Your task to perform on an android device: turn off notifications in google photos Image 0: 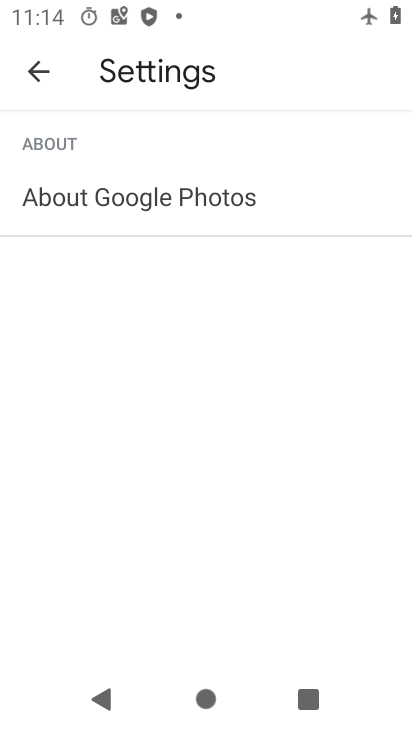
Step 0: press home button
Your task to perform on an android device: turn off notifications in google photos Image 1: 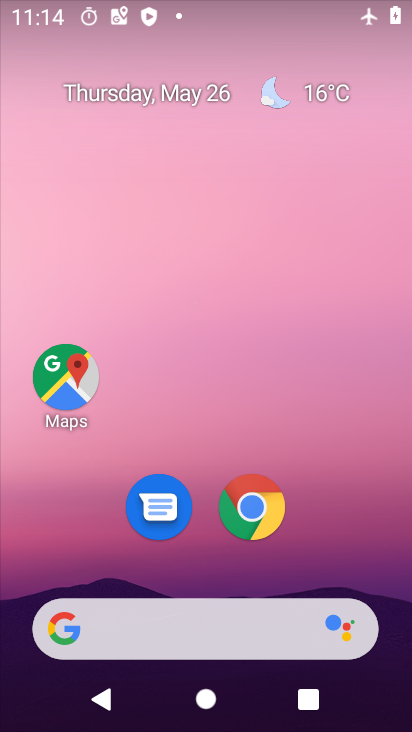
Step 1: drag from (156, 531) to (196, 190)
Your task to perform on an android device: turn off notifications in google photos Image 2: 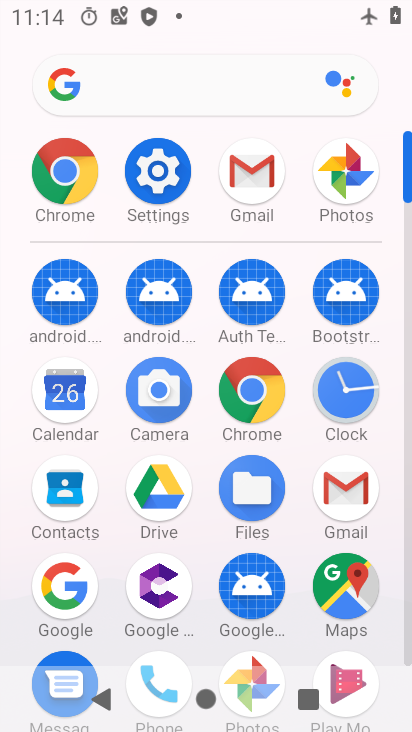
Step 2: click (343, 180)
Your task to perform on an android device: turn off notifications in google photos Image 3: 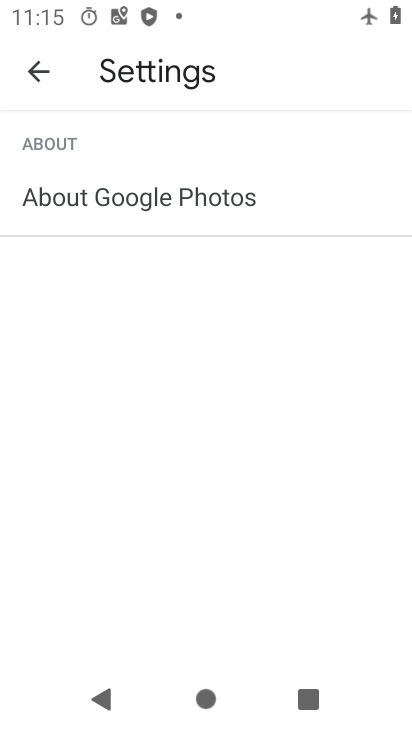
Step 3: press home button
Your task to perform on an android device: turn off notifications in google photos Image 4: 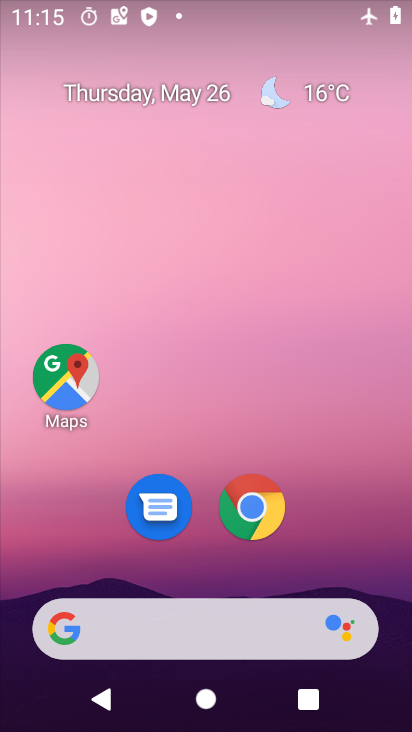
Step 4: drag from (178, 604) to (207, 235)
Your task to perform on an android device: turn off notifications in google photos Image 5: 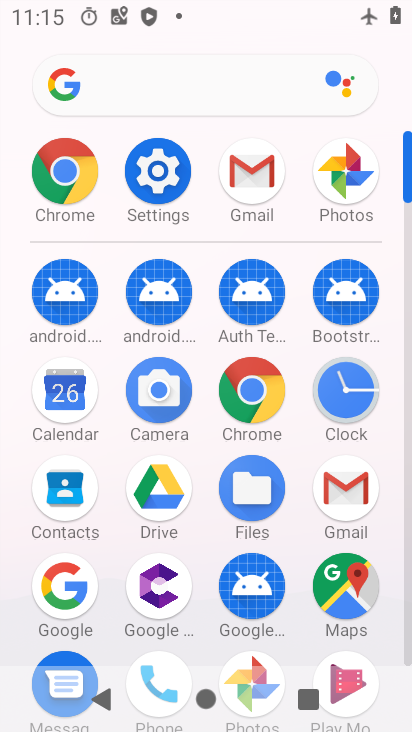
Step 5: click (351, 174)
Your task to perform on an android device: turn off notifications in google photos Image 6: 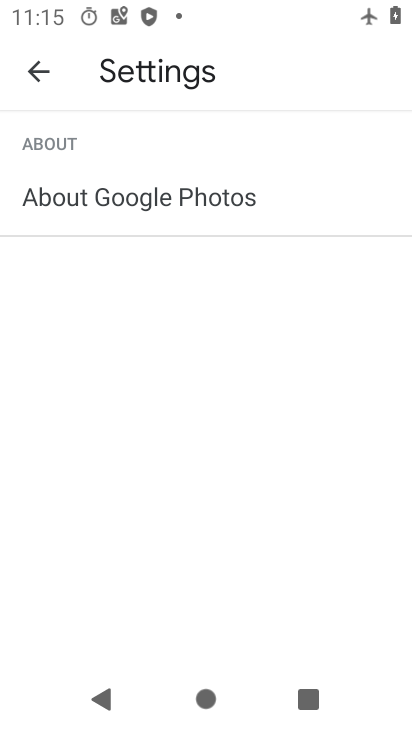
Step 6: click (35, 87)
Your task to perform on an android device: turn off notifications in google photos Image 7: 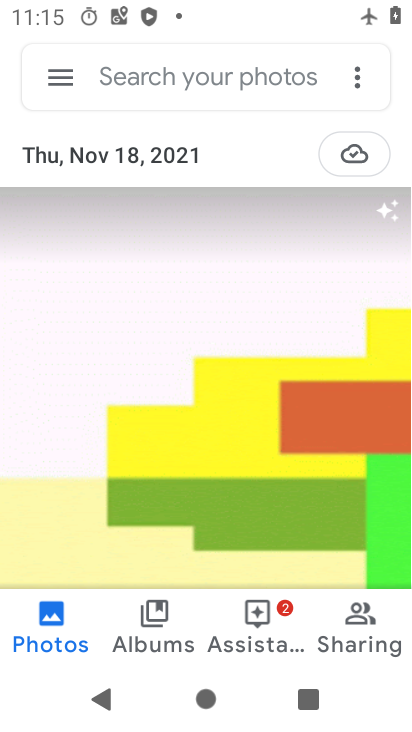
Step 7: click (50, 78)
Your task to perform on an android device: turn off notifications in google photos Image 8: 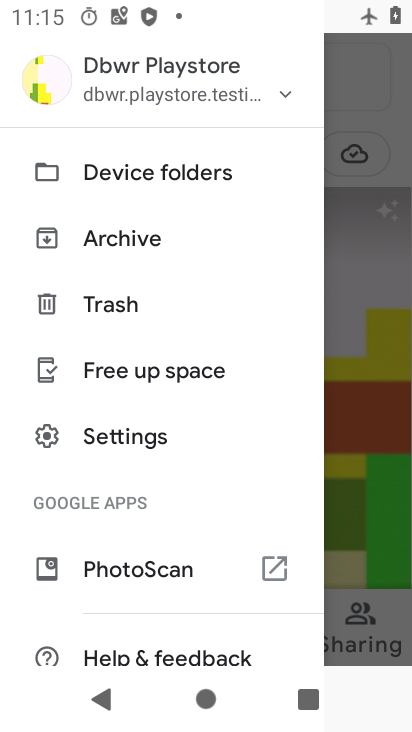
Step 8: click (150, 439)
Your task to perform on an android device: turn off notifications in google photos Image 9: 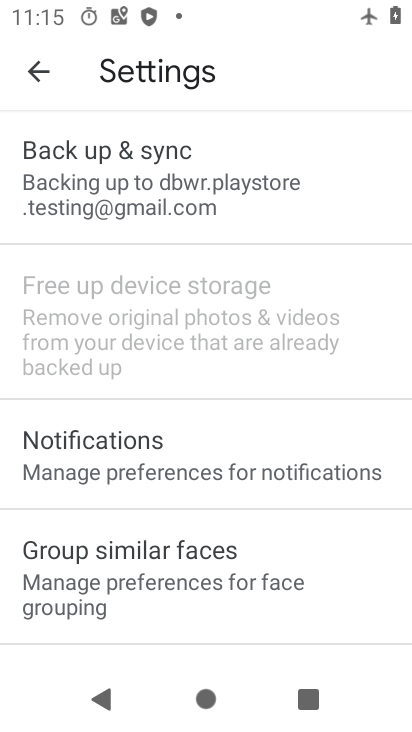
Step 9: click (141, 459)
Your task to perform on an android device: turn off notifications in google photos Image 10: 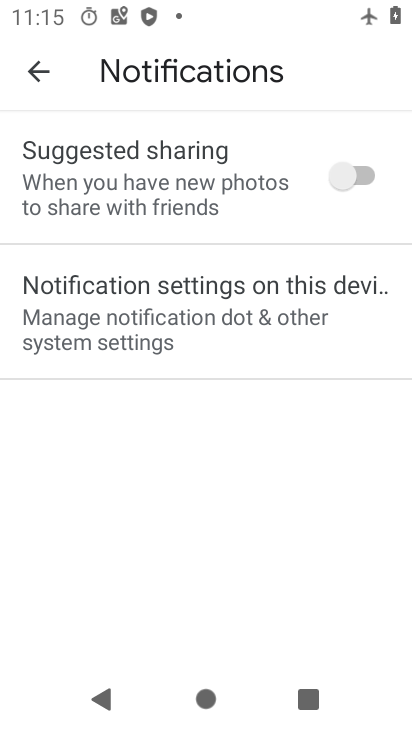
Step 10: click (225, 305)
Your task to perform on an android device: turn off notifications in google photos Image 11: 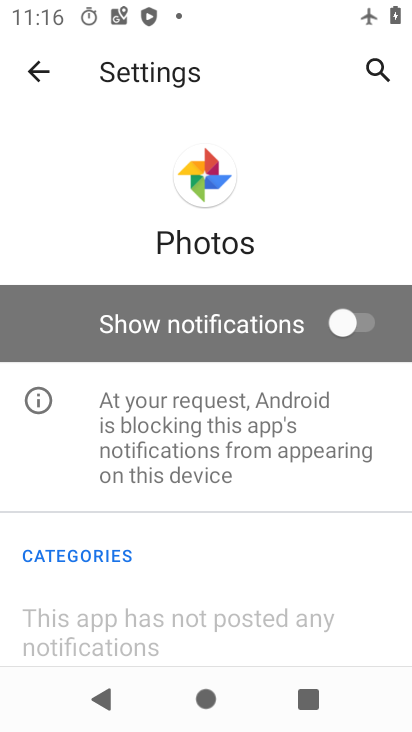
Step 11: click (115, 294)
Your task to perform on an android device: turn off notifications in google photos Image 12: 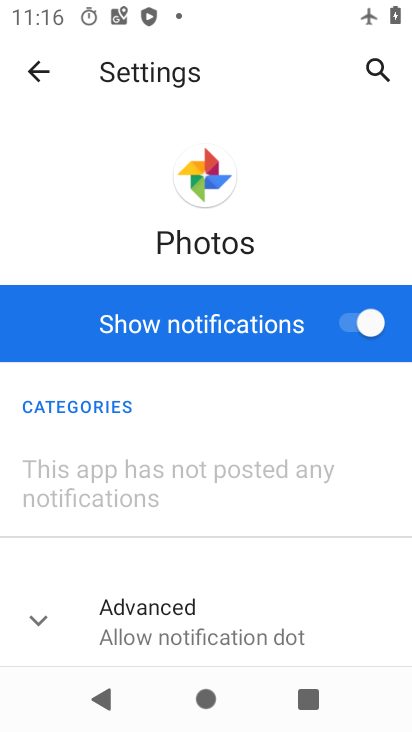
Step 12: click (129, 323)
Your task to perform on an android device: turn off notifications in google photos Image 13: 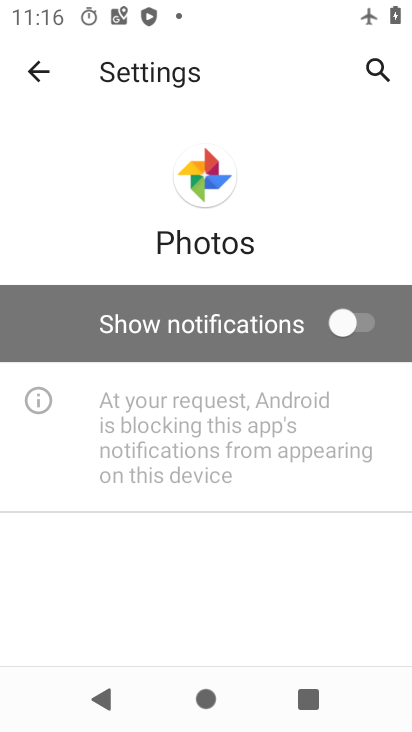
Step 13: task complete